Your task to perform on an android device: turn off data saver in the chrome app Image 0: 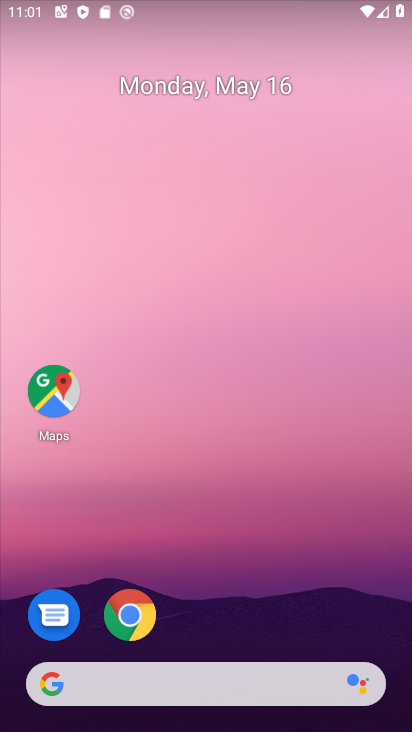
Step 0: click (128, 619)
Your task to perform on an android device: turn off data saver in the chrome app Image 1: 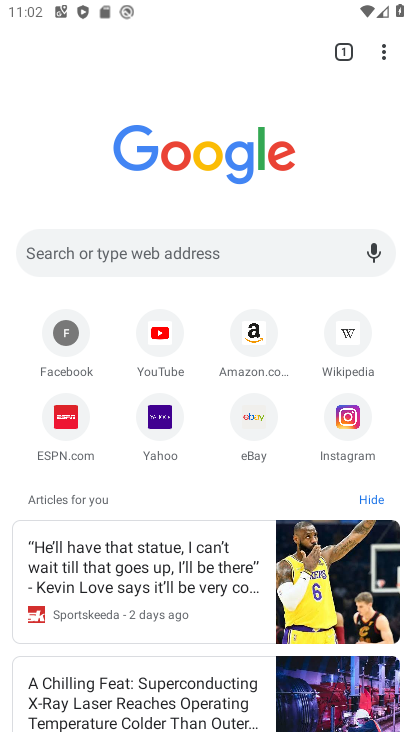
Step 1: click (386, 58)
Your task to perform on an android device: turn off data saver in the chrome app Image 2: 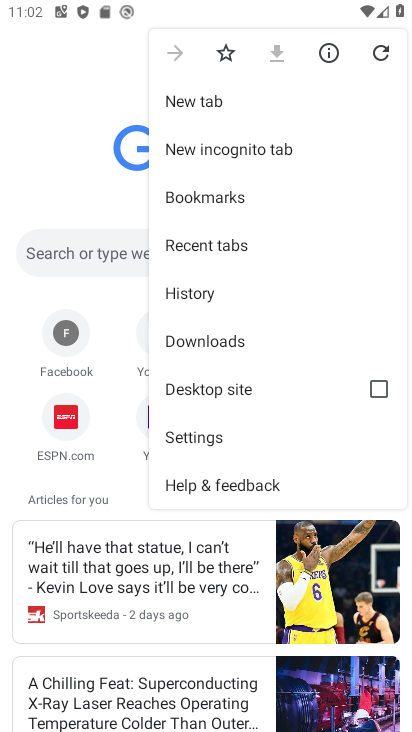
Step 2: click (200, 437)
Your task to perform on an android device: turn off data saver in the chrome app Image 3: 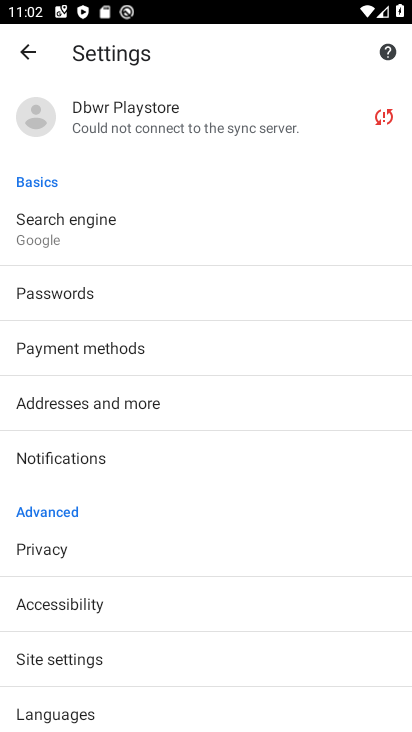
Step 3: drag from (130, 676) to (152, 263)
Your task to perform on an android device: turn off data saver in the chrome app Image 4: 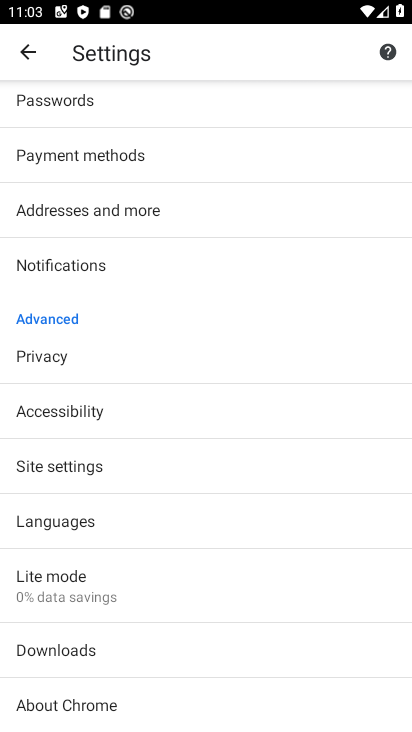
Step 4: click (75, 587)
Your task to perform on an android device: turn off data saver in the chrome app Image 5: 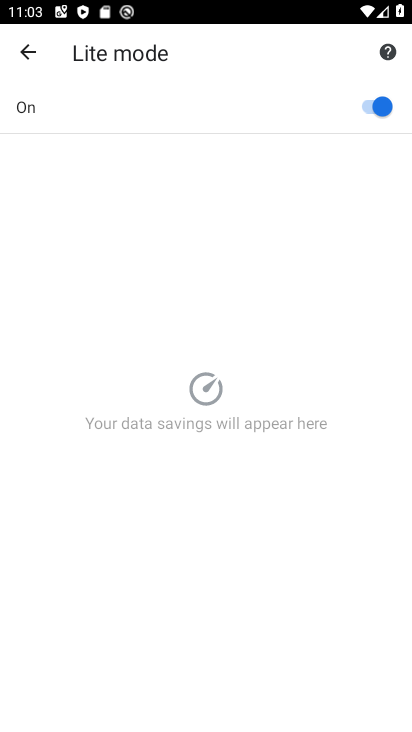
Step 5: click (369, 104)
Your task to perform on an android device: turn off data saver in the chrome app Image 6: 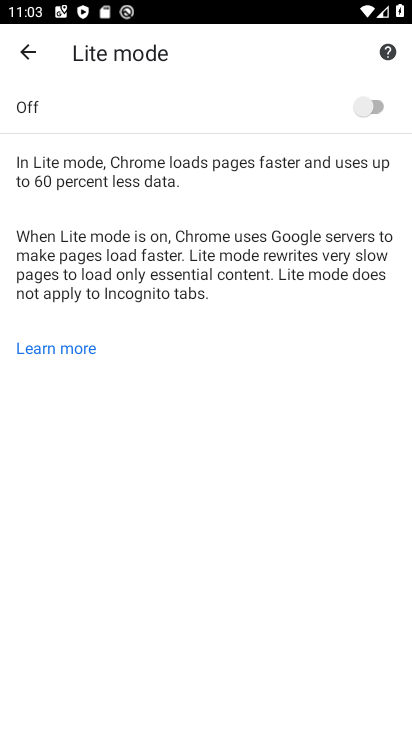
Step 6: task complete